Your task to perform on an android device: change the clock display to digital Image 0: 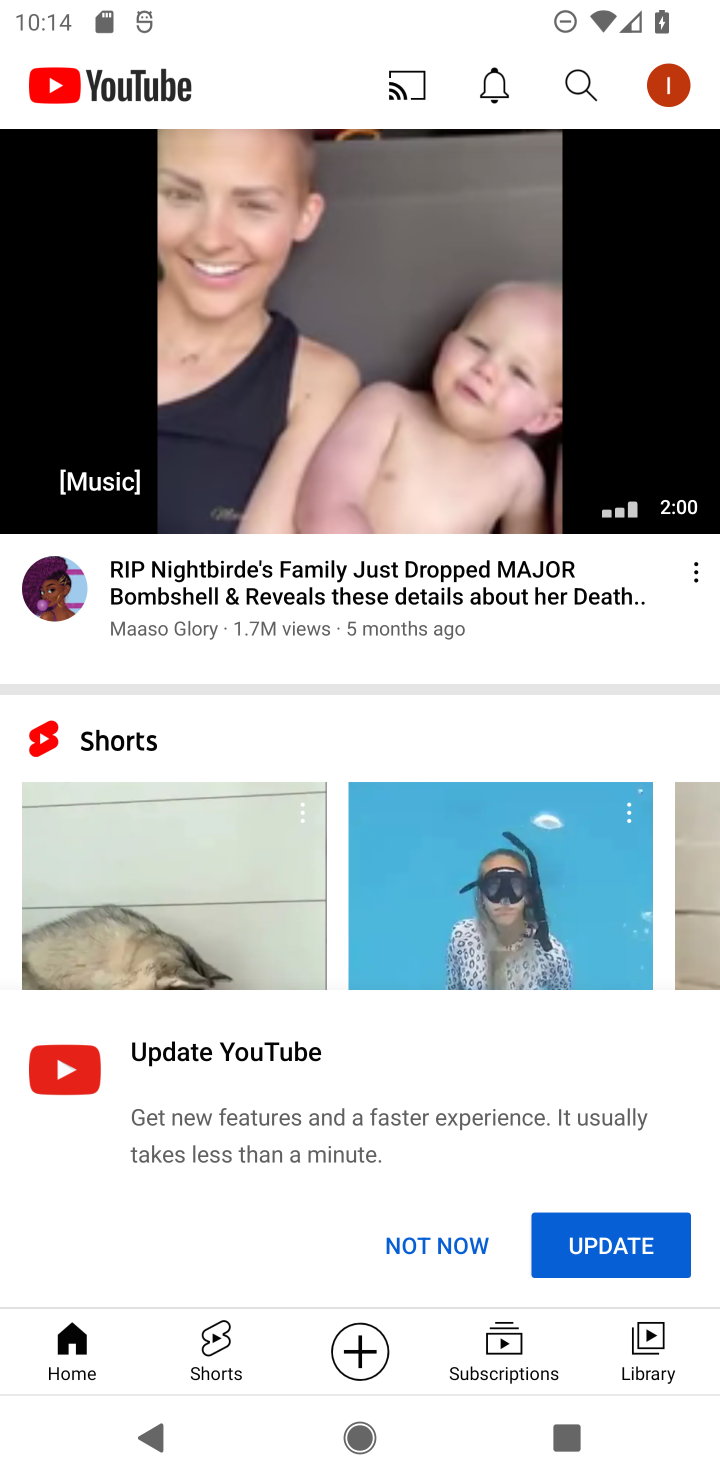
Step 0: press home button
Your task to perform on an android device: change the clock display to digital Image 1: 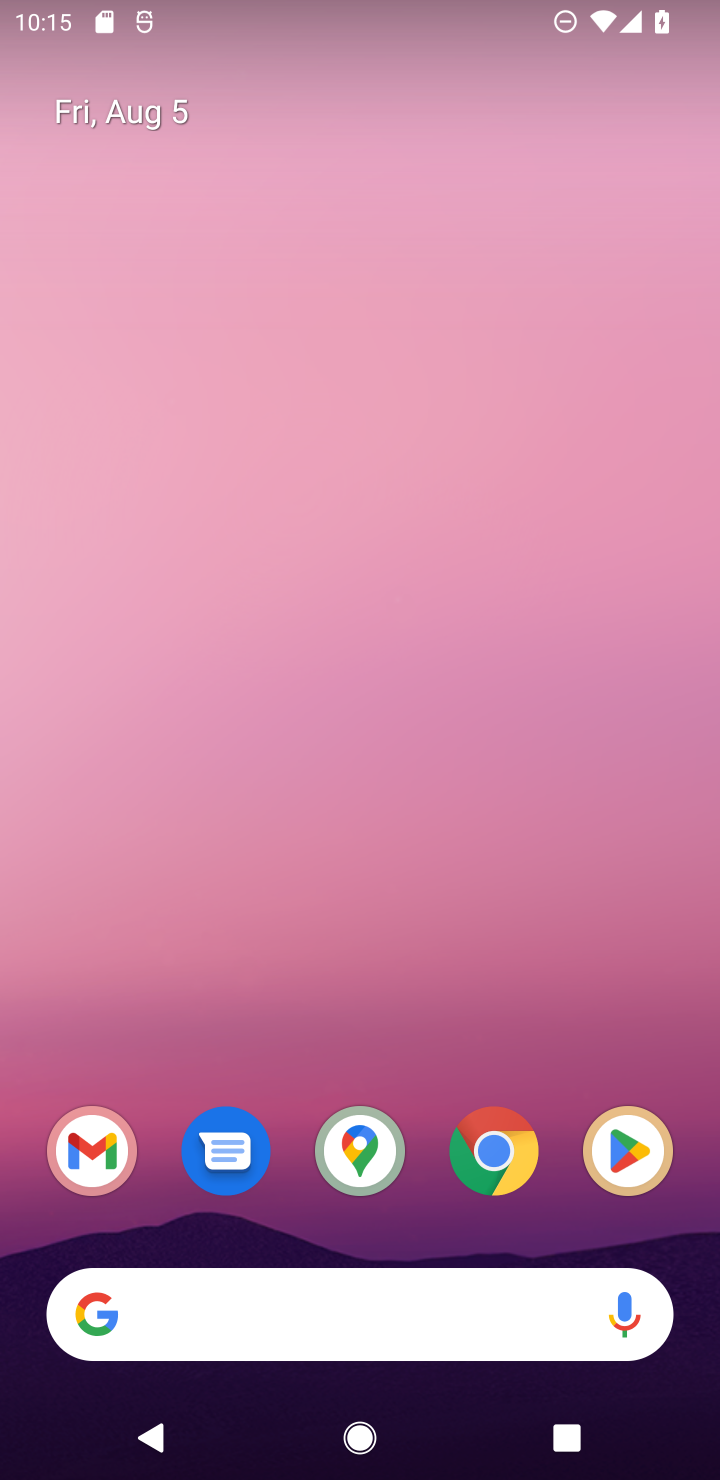
Step 1: drag from (413, 1182) to (362, 74)
Your task to perform on an android device: change the clock display to digital Image 2: 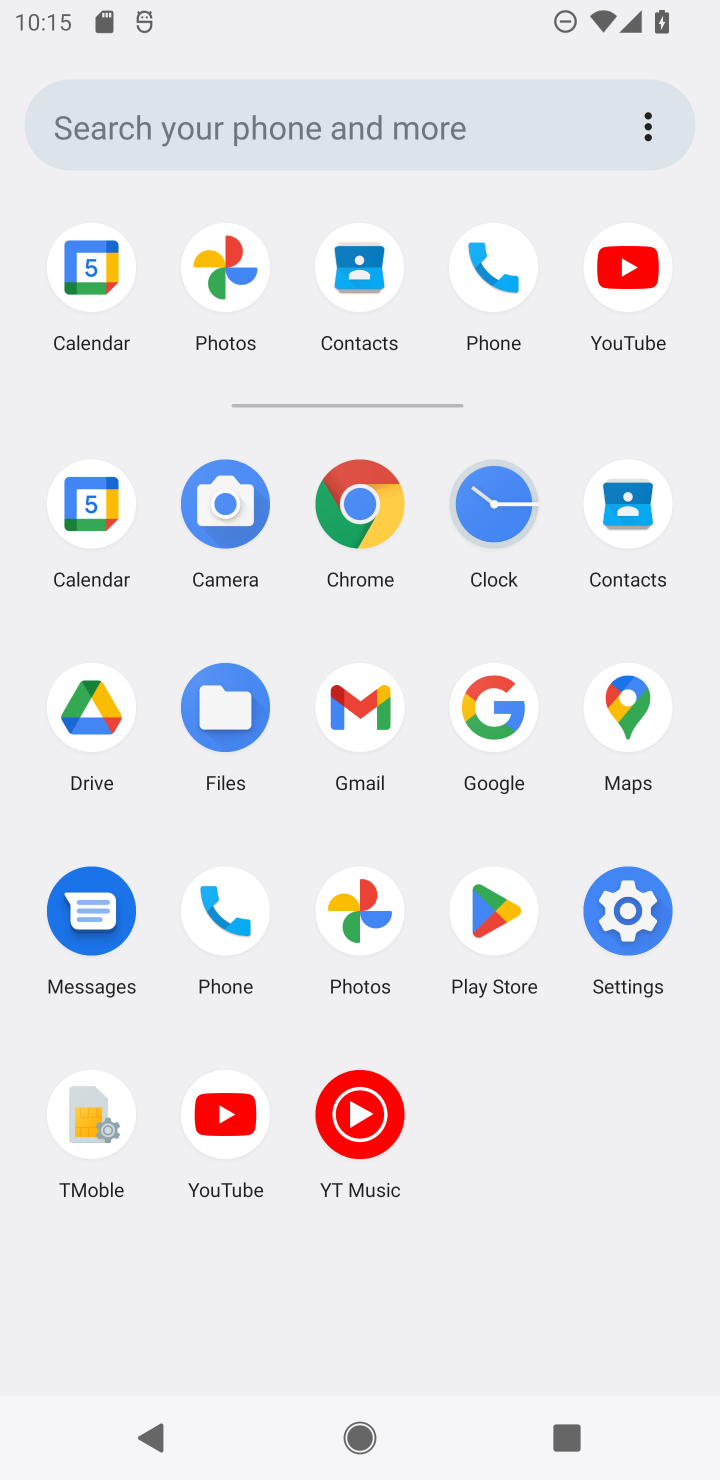
Step 2: click (500, 510)
Your task to perform on an android device: change the clock display to digital Image 3: 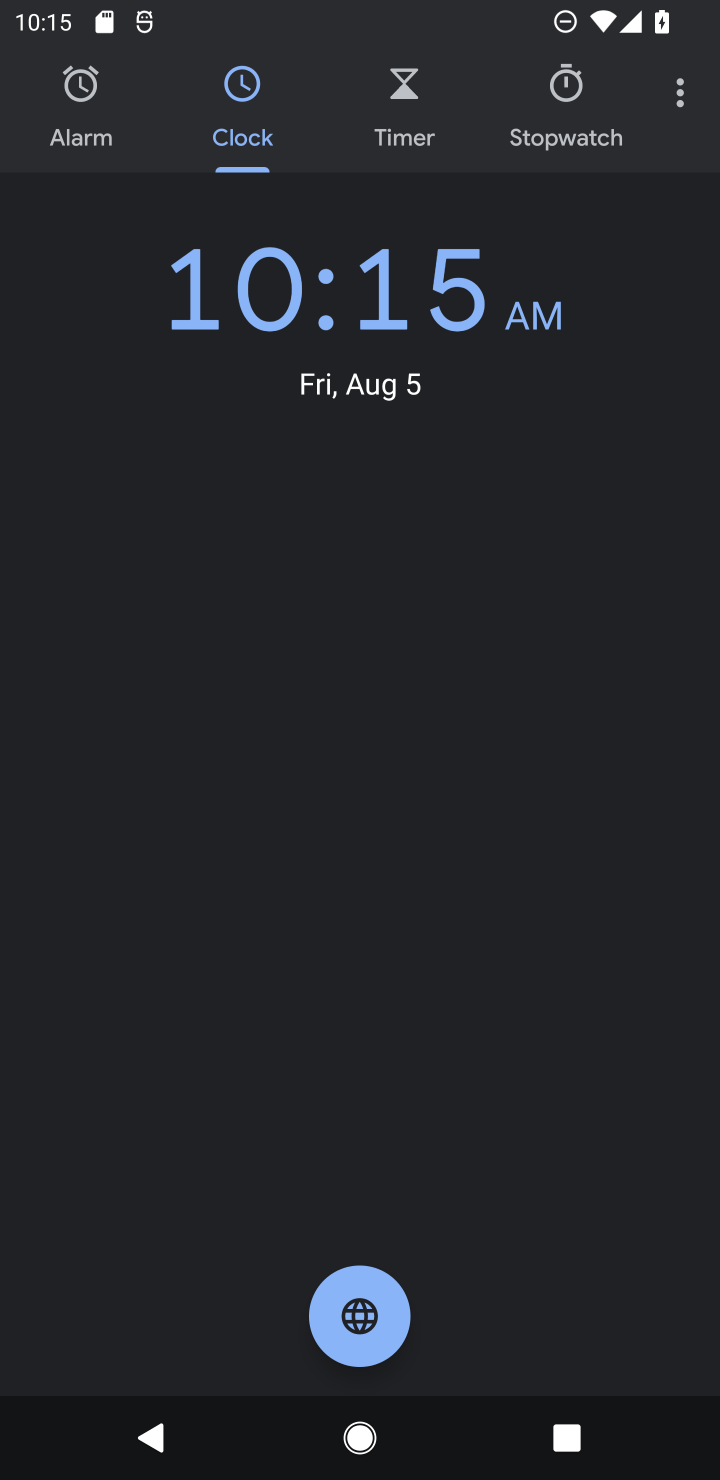
Step 3: click (674, 81)
Your task to perform on an android device: change the clock display to digital Image 4: 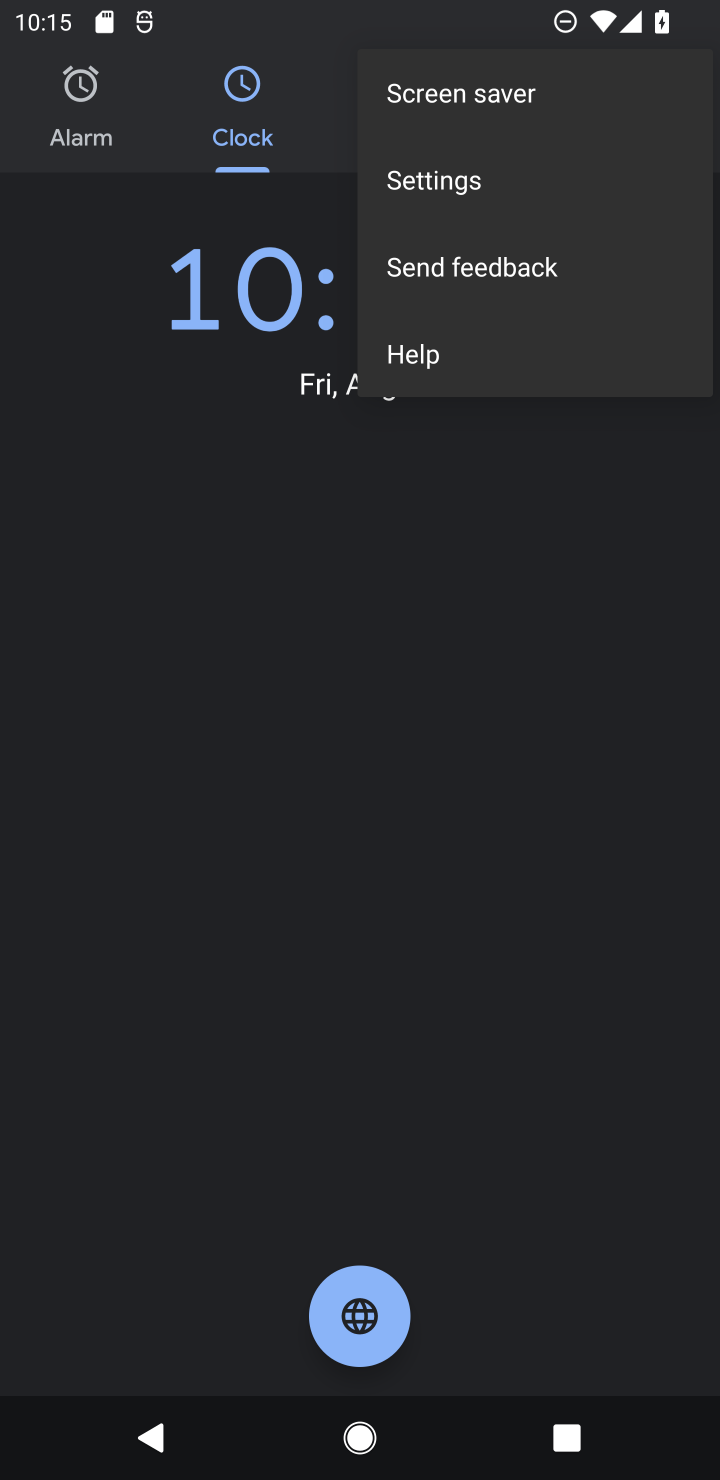
Step 4: click (441, 180)
Your task to perform on an android device: change the clock display to digital Image 5: 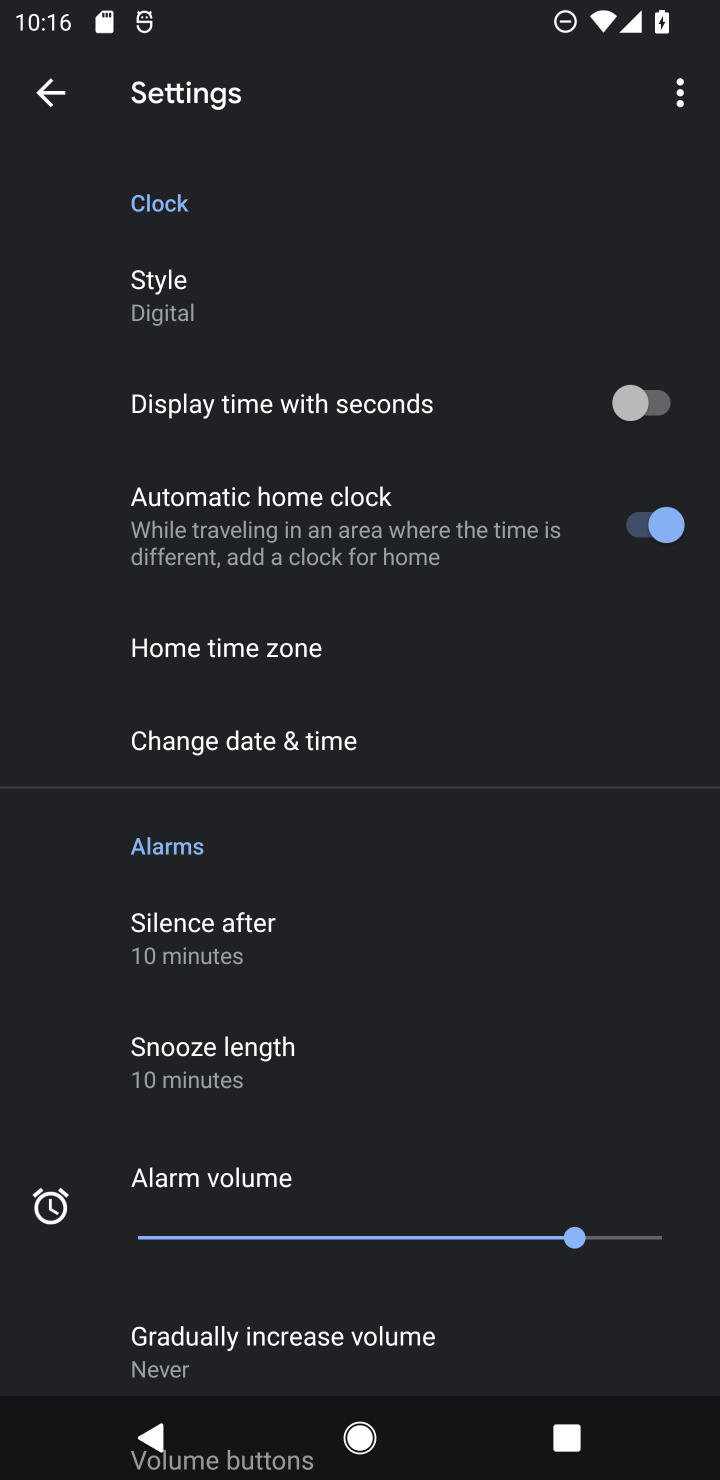
Step 5: click (162, 295)
Your task to perform on an android device: change the clock display to digital Image 6: 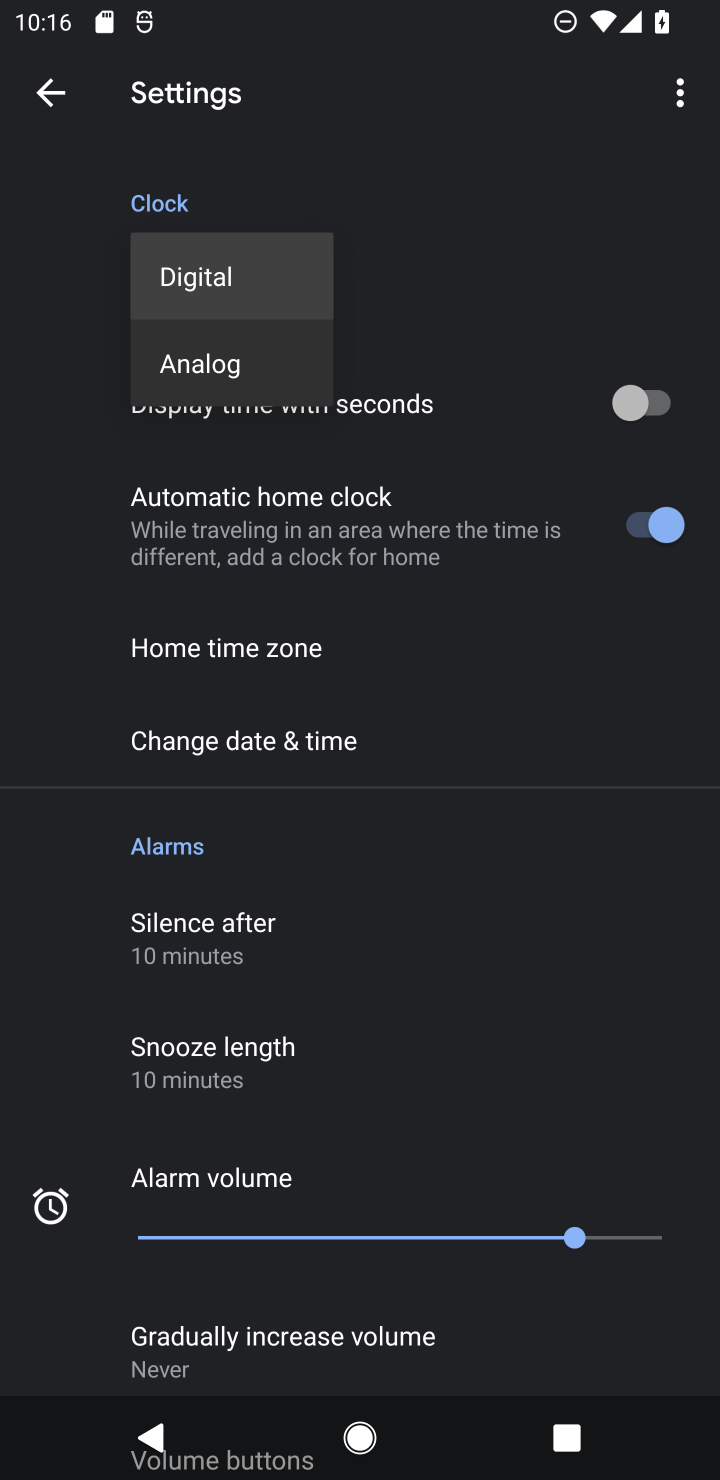
Step 6: click (162, 295)
Your task to perform on an android device: change the clock display to digital Image 7: 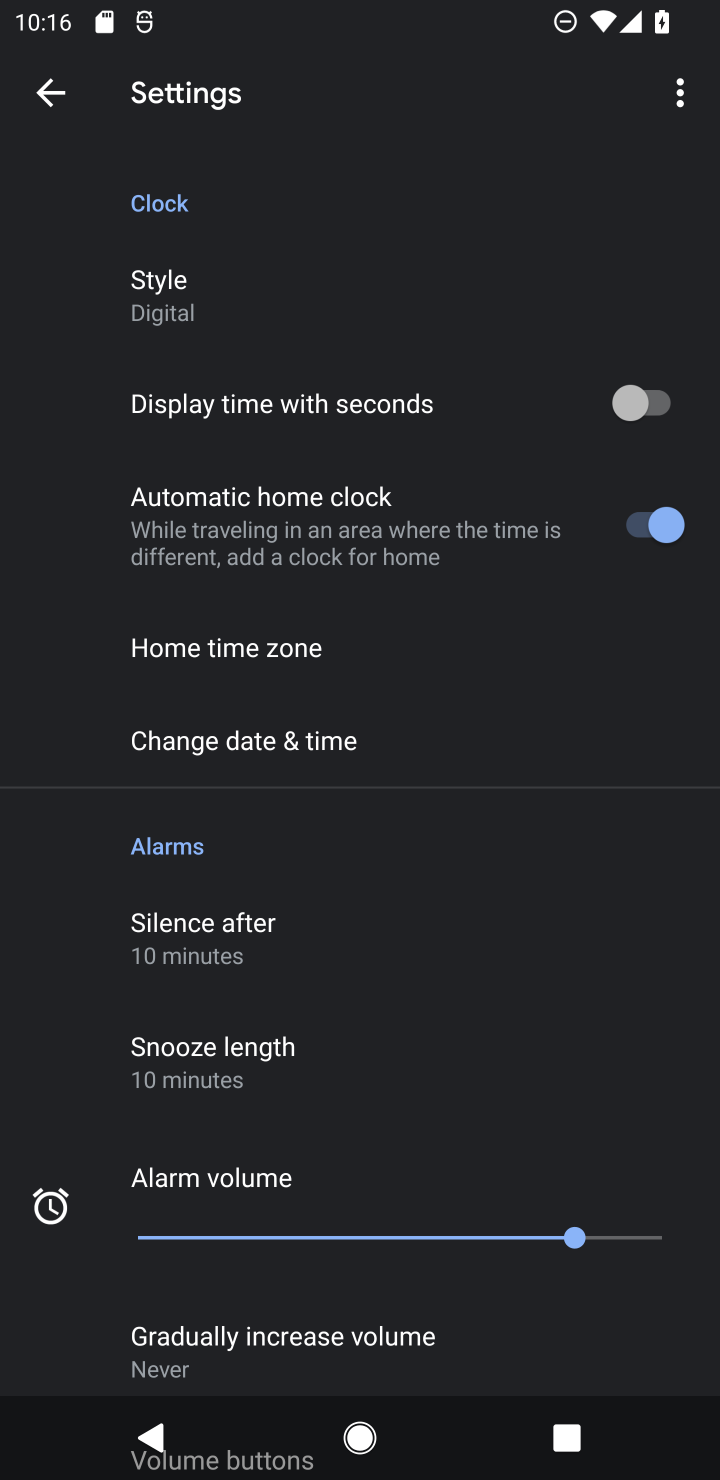
Step 7: task complete